Your task to perform on an android device: check out phone information Image 0: 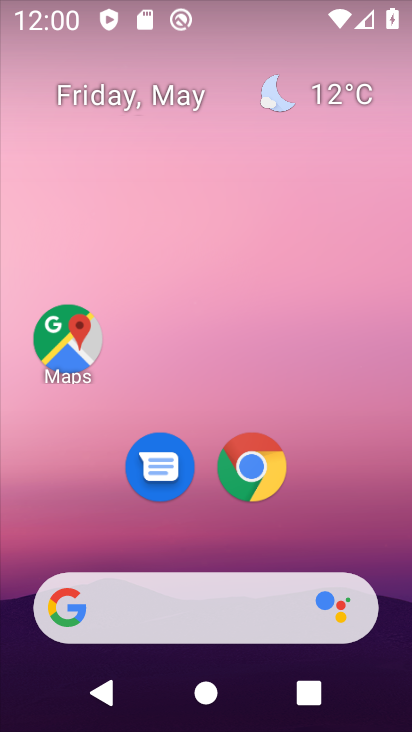
Step 0: drag from (381, 479) to (341, 55)
Your task to perform on an android device: check out phone information Image 1: 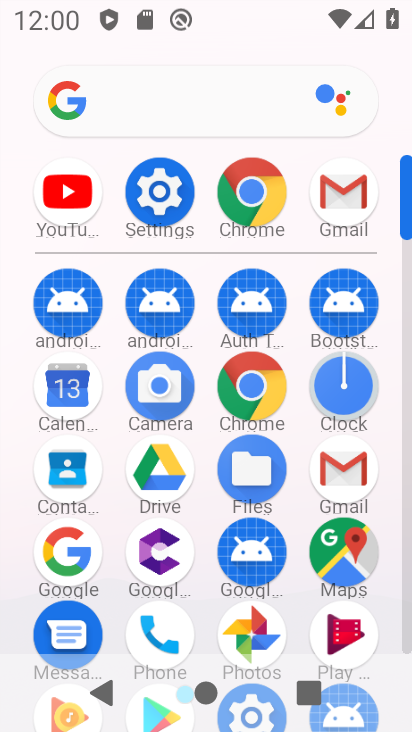
Step 1: click (150, 193)
Your task to perform on an android device: check out phone information Image 2: 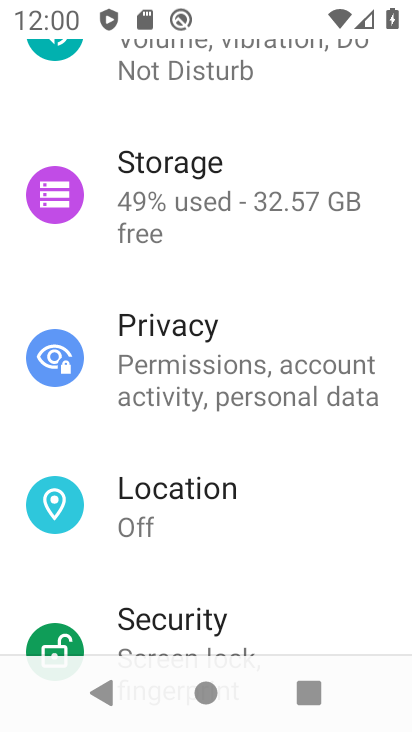
Step 2: drag from (251, 544) to (238, 126)
Your task to perform on an android device: check out phone information Image 3: 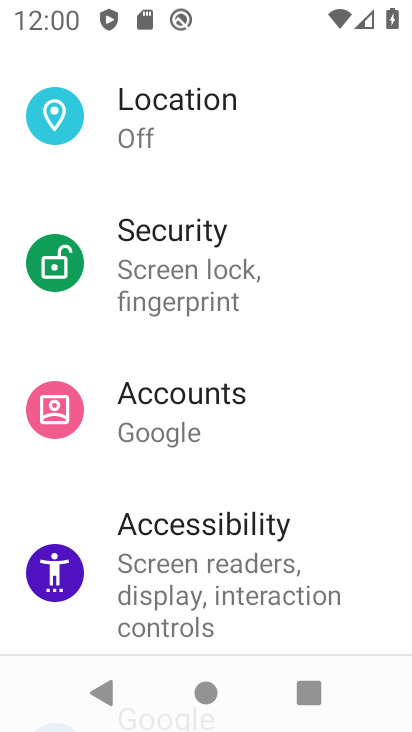
Step 3: drag from (193, 544) to (173, 120)
Your task to perform on an android device: check out phone information Image 4: 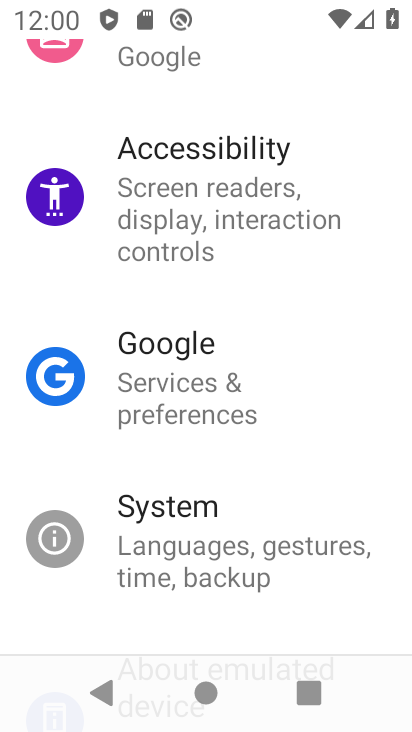
Step 4: drag from (111, 605) to (140, 142)
Your task to perform on an android device: check out phone information Image 5: 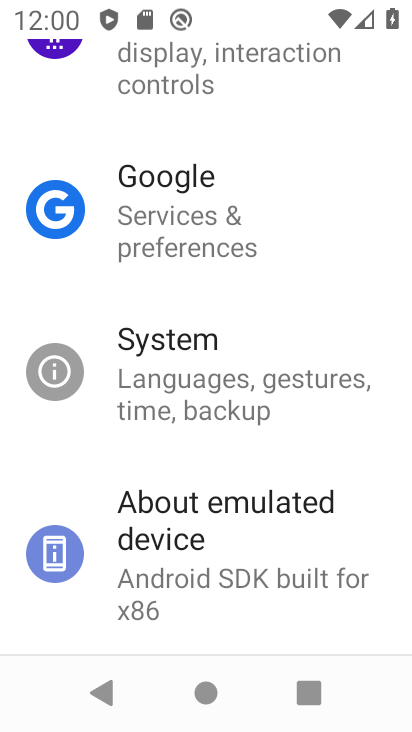
Step 5: click (131, 533)
Your task to perform on an android device: check out phone information Image 6: 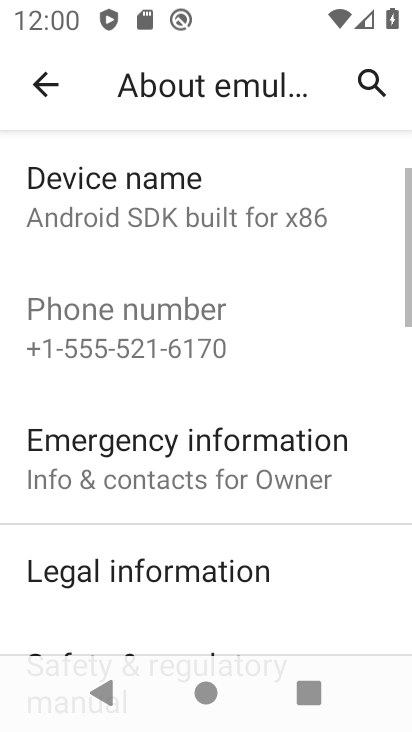
Step 6: task complete